Your task to perform on an android device: open a bookmark in the chrome app Image 0: 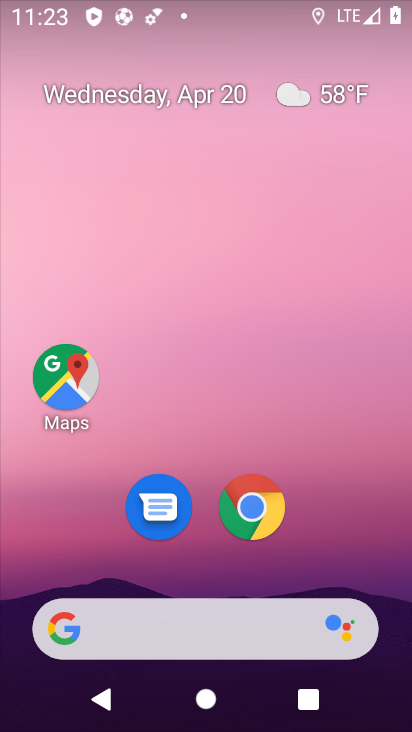
Step 0: drag from (347, 549) to (354, 148)
Your task to perform on an android device: open a bookmark in the chrome app Image 1: 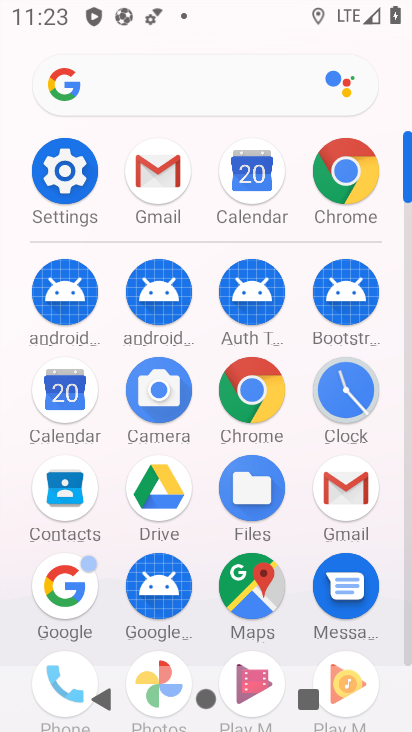
Step 1: click (224, 391)
Your task to perform on an android device: open a bookmark in the chrome app Image 2: 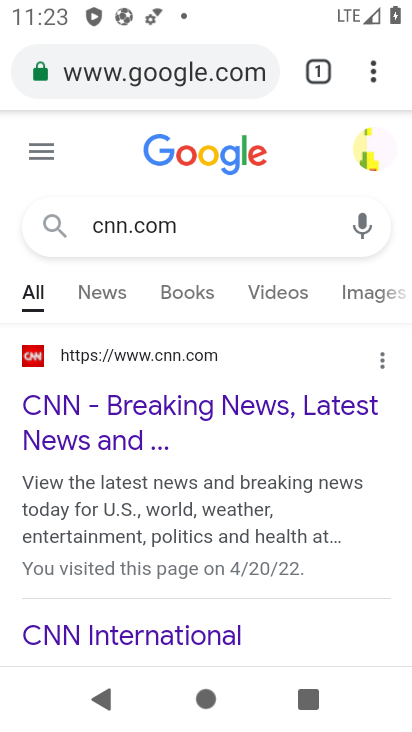
Step 2: click (374, 76)
Your task to perform on an android device: open a bookmark in the chrome app Image 3: 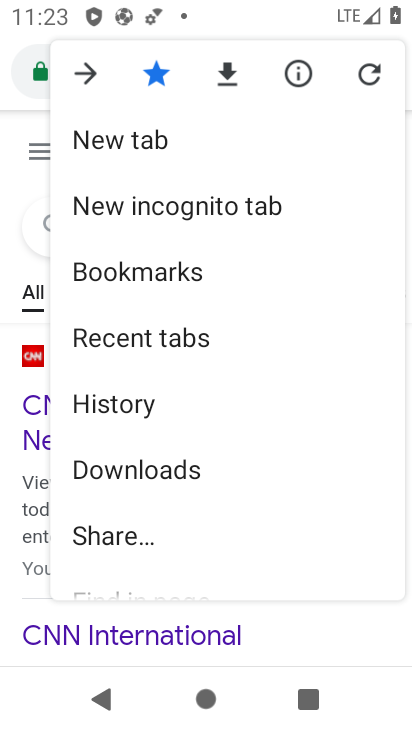
Step 3: drag from (315, 457) to (324, 233)
Your task to perform on an android device: open a bookmark in the chrome app Image 4: 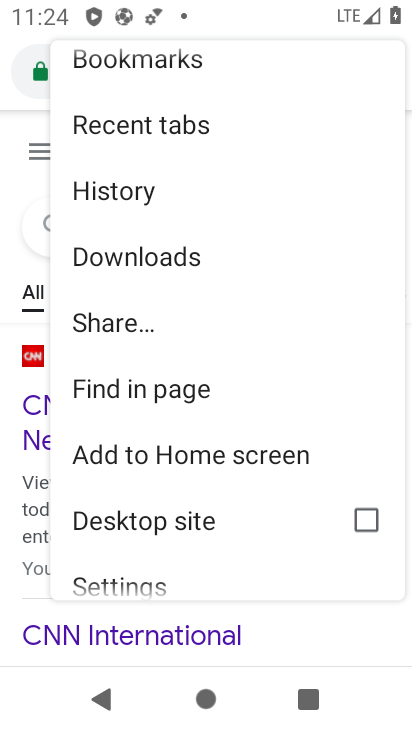
Step 4: drag from (309, 157) to (308, 365)
Your task to perform on an android device: open a bookmark in the chrome app Image 5: 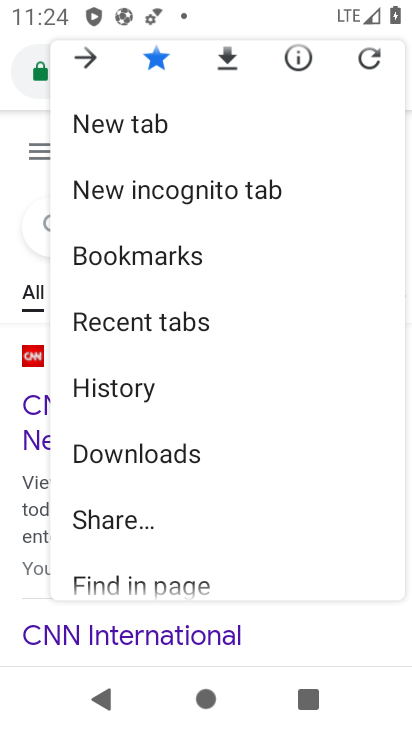
Step 5: click (153, 258)
Your task to perform on an android device: open a bookmark in the chrome app Image 6: 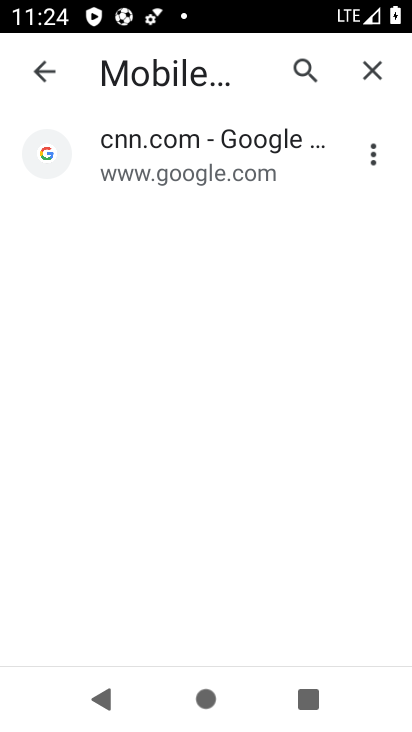
Step 6: click (226, 148)
Your task to perform on an android device: open a bookmark in the chrome app Image 7: 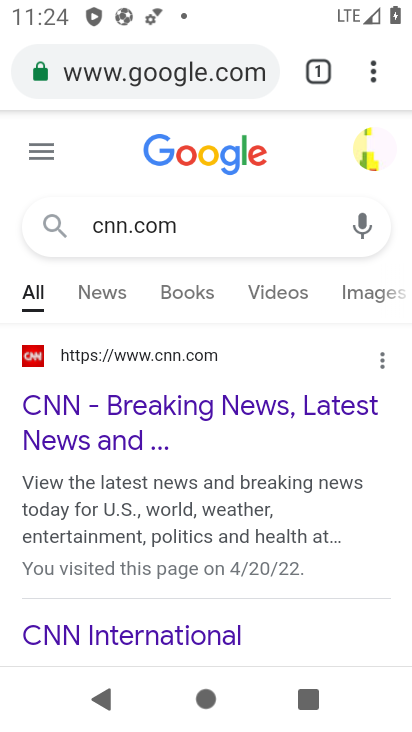
Step 7: task complete